Your task to perform on an android device: turn off sleep mode Image 0: 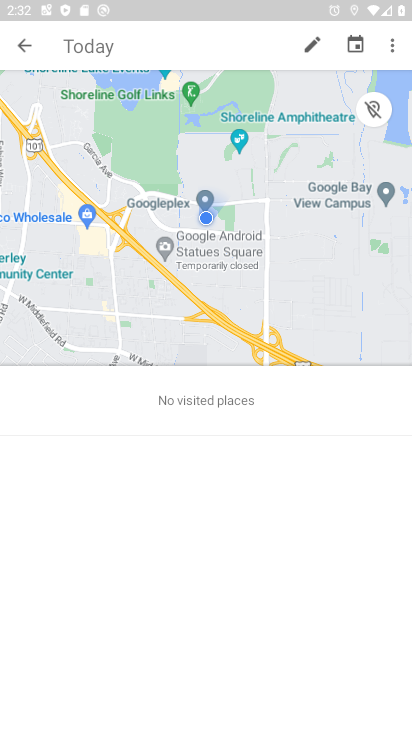
Step 0: press home button
Your task to perform on an android device: turn off sleep mode Image 1: 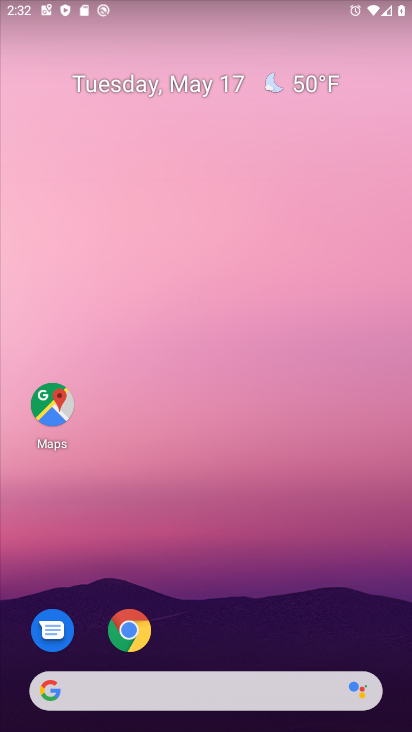
Step 1: drag from (198, 672) to (261, 327)
Your task to perform on an android device: turn off sleep mode Image 2: 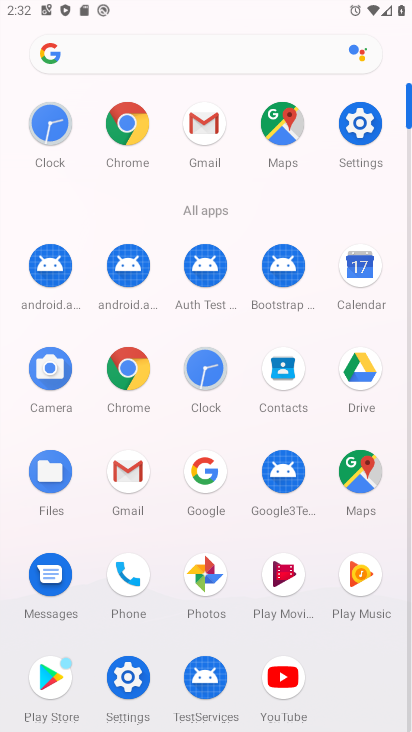
Step 2: click (370, 101)
Your task to perform on an android device: turn off sleep mode Image 3: 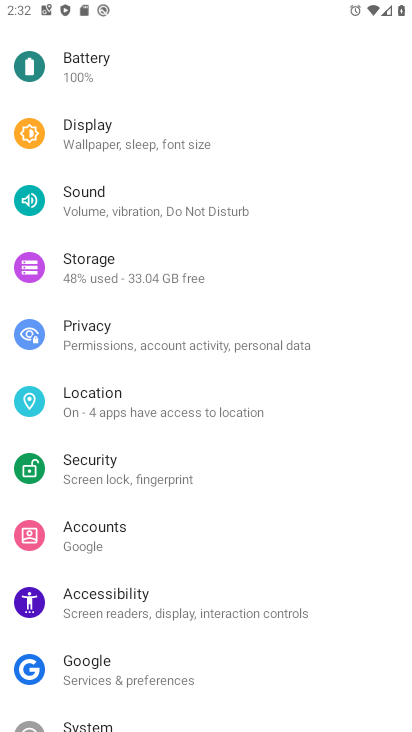
Step 3: click (134, 143)
Your task to perform on an android device: turn off sleep mode Image 4: 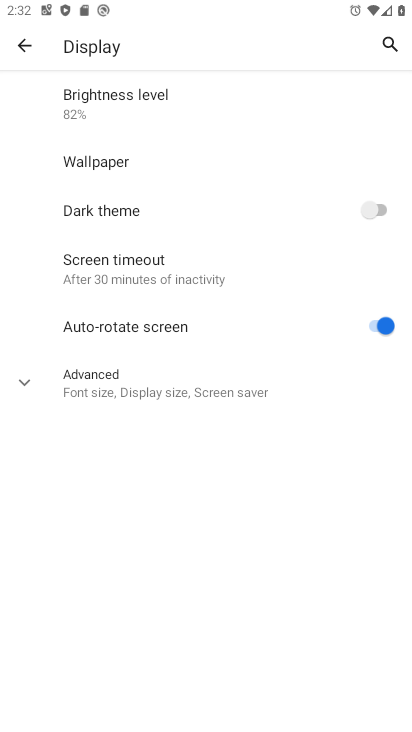
Step 4: click (124, 262)
Your task to perform on an android device: turn off sleep mode Image 5: 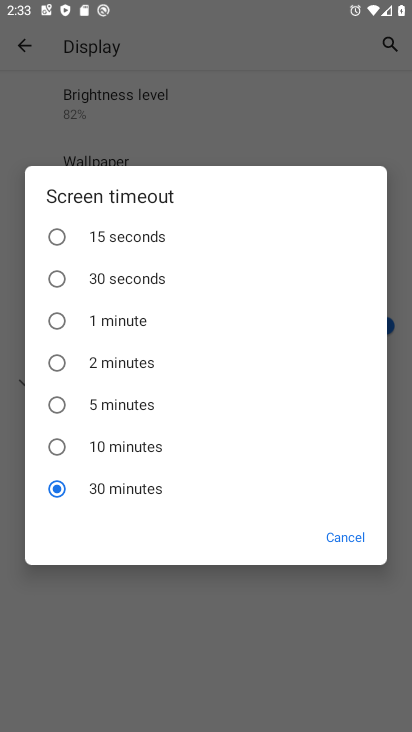
Step 5: click (150, 239)
Your task to perform on an android device: turn off sleep mode Image 6: 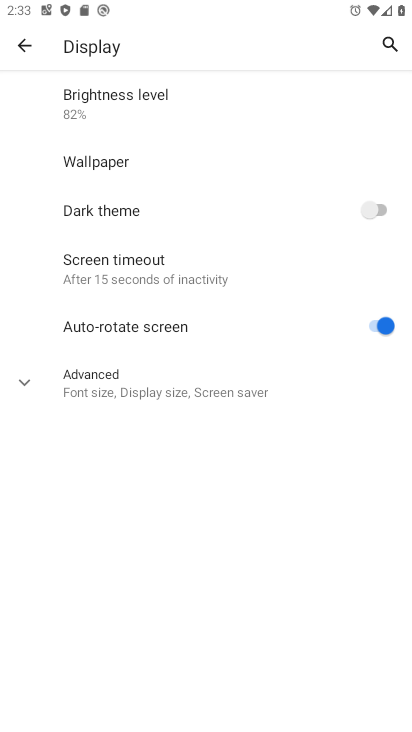
Step 6: task complete